Your task to perform on an android device: Open internet settings Image 0: 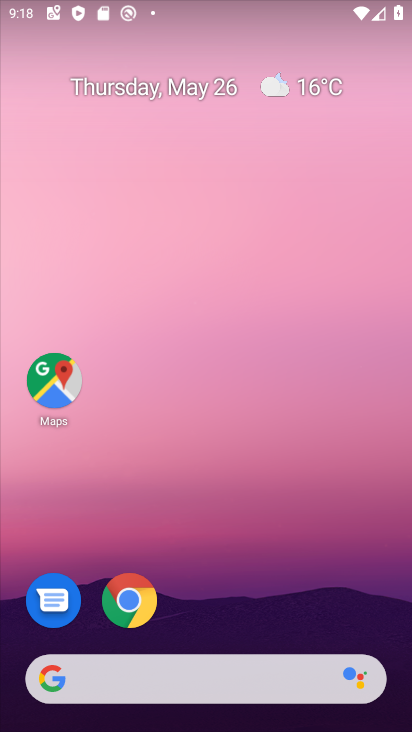
Step 0: drag from (217, 12) to (229, 590)
Your task to perform on an android device: Open internet settings Image 1: 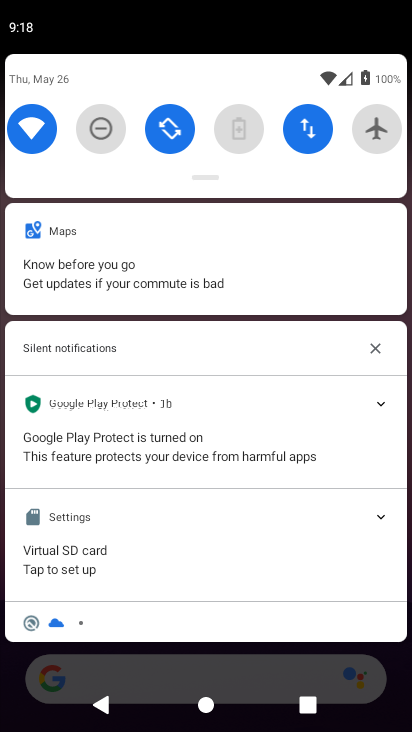
Step 1: click (310, 121)
Your task to perform on an android device: Open internet settings Image 2: 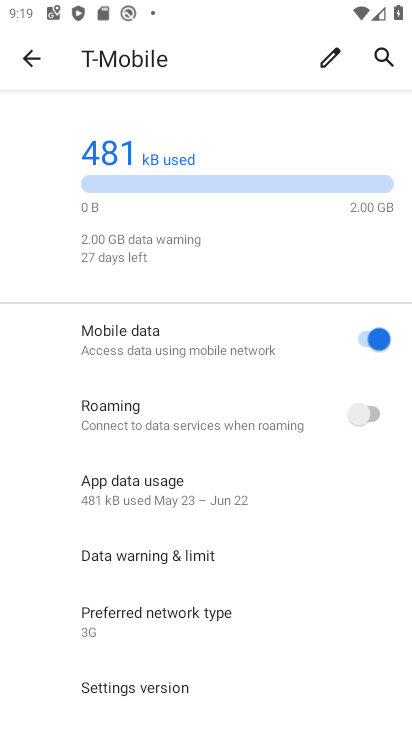
Step 2: task complete